Your task to perform on an android device: turn off smart reply in the gmail app Image 0: 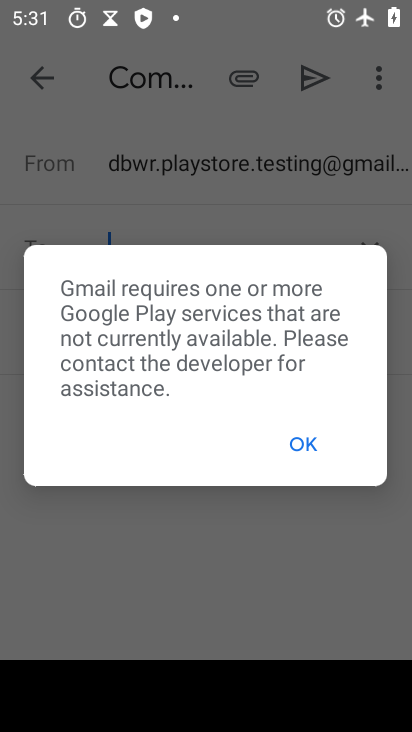
Step 0: click (291, 449)
Your task to perform on an android device: turn off smart reply in the gmail app Image 1: 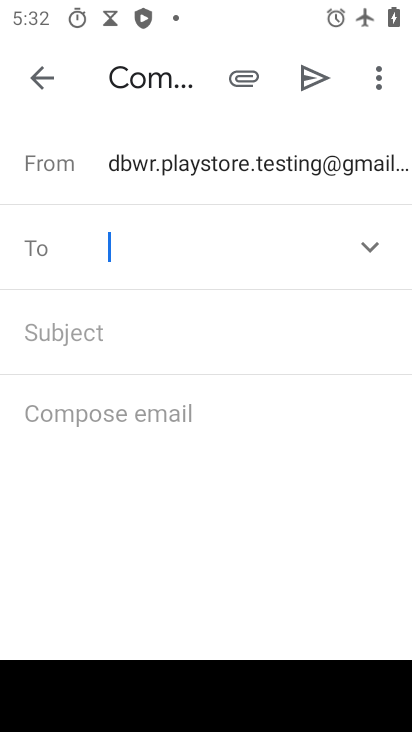
Step 1: click (40, 77)
Your task to perform on an android device: turn off smart reply in the gmail app Image 2: 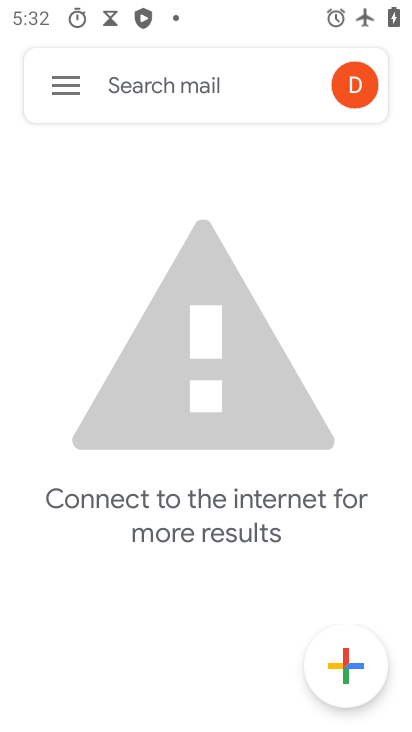
Step 2: click (67, 96)
Your task to perform on an android device: turn off smart reply in the gmail app Image 3: 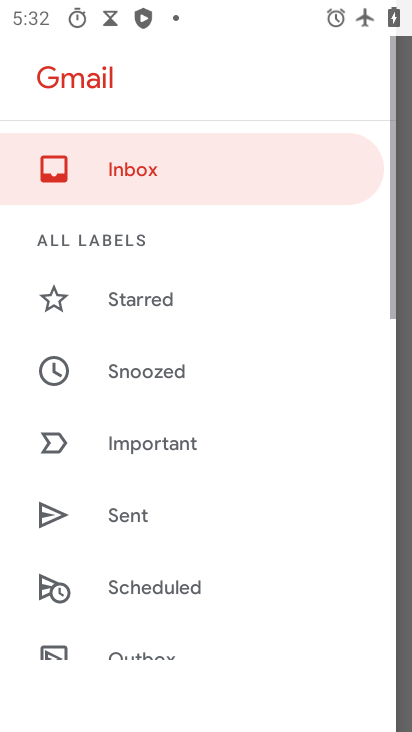
Step 3: drag from (166, 648) to (143, 294)
Your task to perform on an android device: turn off smart reply in the gmail app Image 4: 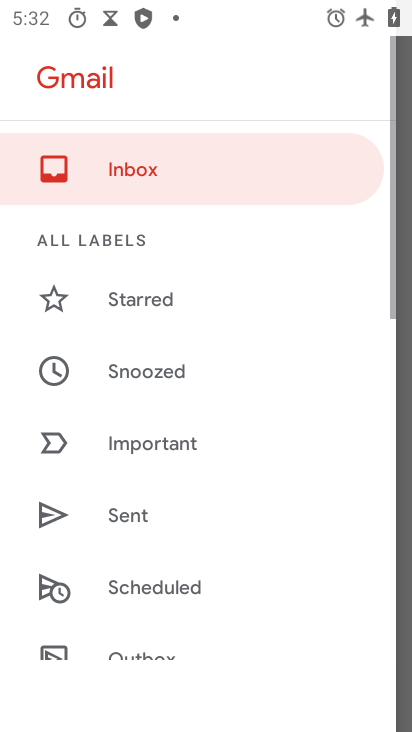
Step 4: drag from (125, 596) to (160, 215)
Your task to perform on an android device: turn off smart reply in the gmail app Image 5: 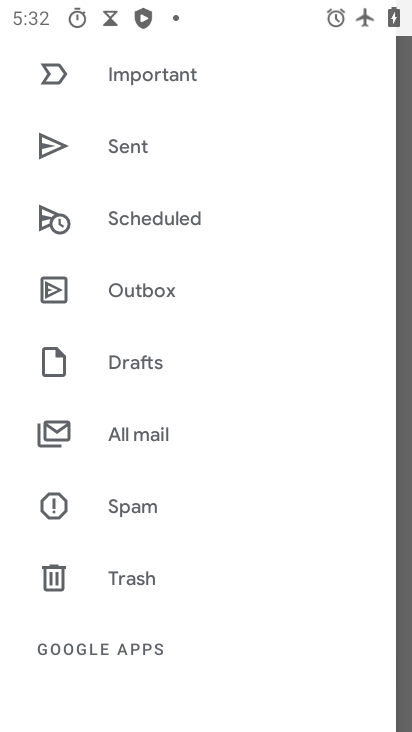
Step 5: drag from (148, 605) to (146, 274)
Your task to perform on an android device: turn off smart reply in the gmail app Image 6: 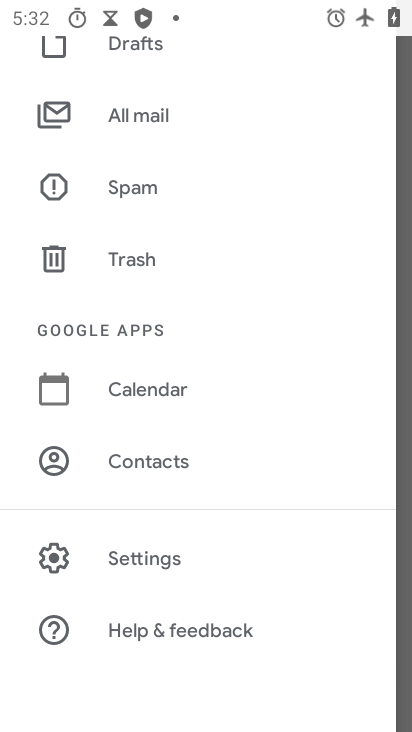
Step 6: click (128, 557)
Your task to perform on an android device: turn off smart reply in the gmail app Image 7: 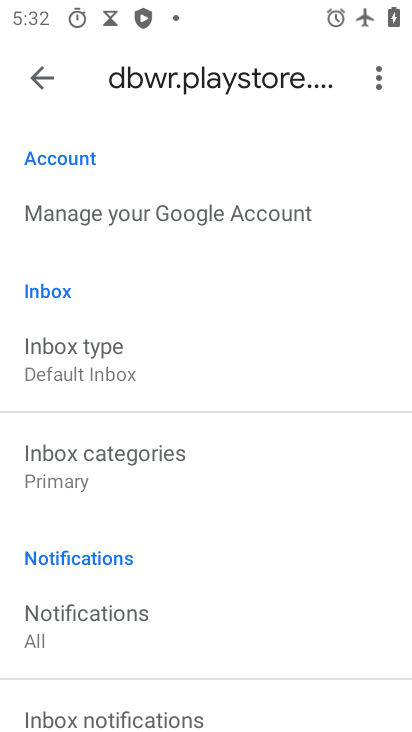
Step 7: task complete